Your task to perform on an android device: turn on sleep mode Image 0: 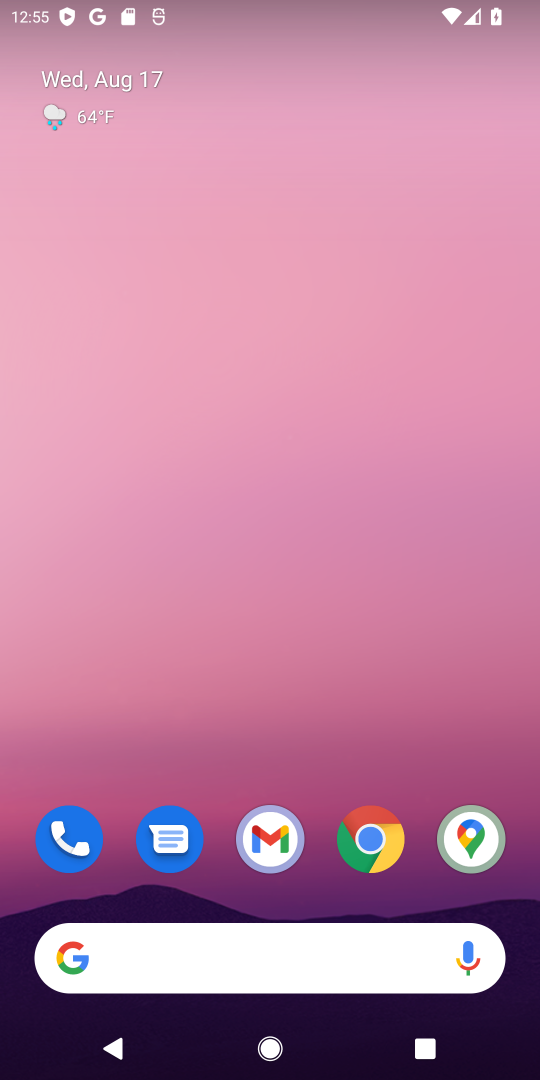
Step 0: drag from (301, 979) to (318, 124)
Your task to perform on an android device: turn on sleep mode Image 1: 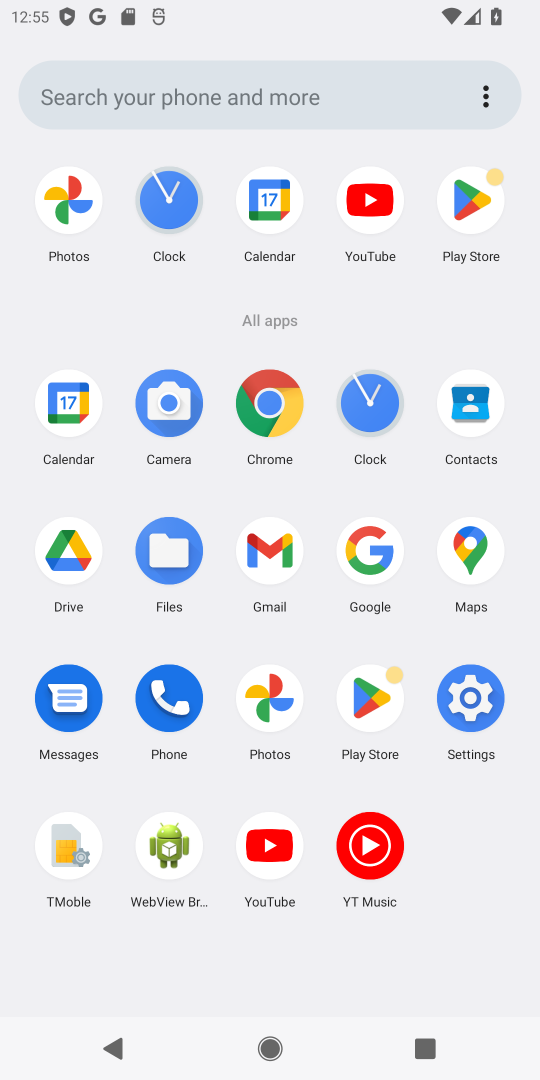
Step 1: click (469, 700)
Your task to perform on an android device: turn on sleep mode Image 2: 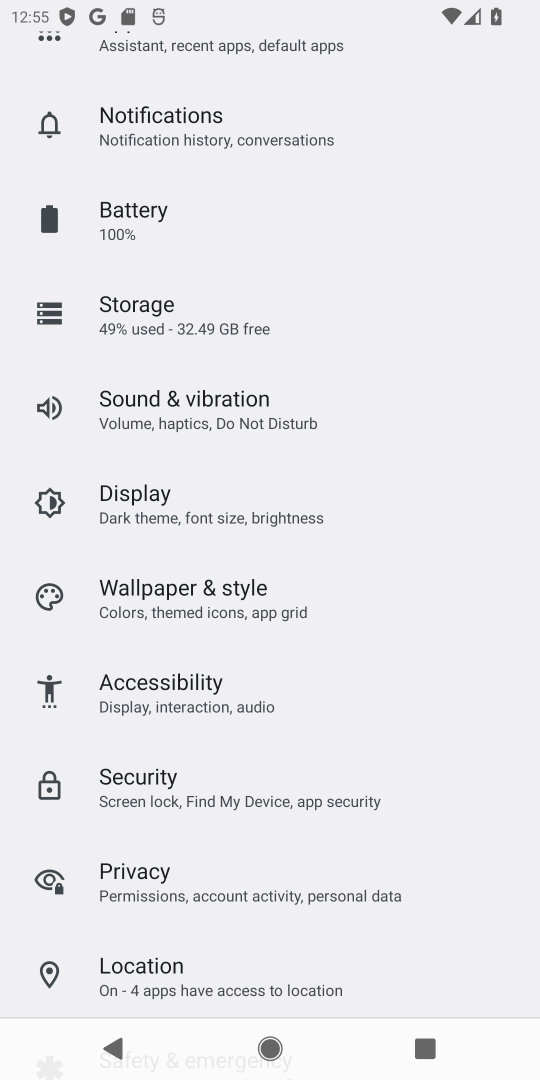
Step 2: click (223, 514)
Your task to perform on an android device: turn on sleep mode Image 3: 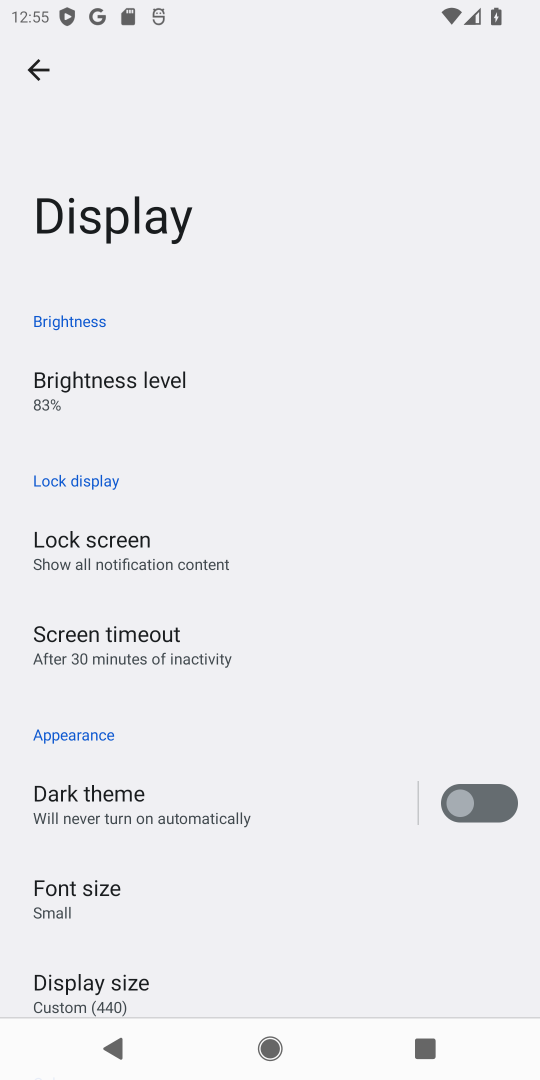
Step 3: click (130, 675)
Your task to perform on an android device: turn on sleep mode Image 4: 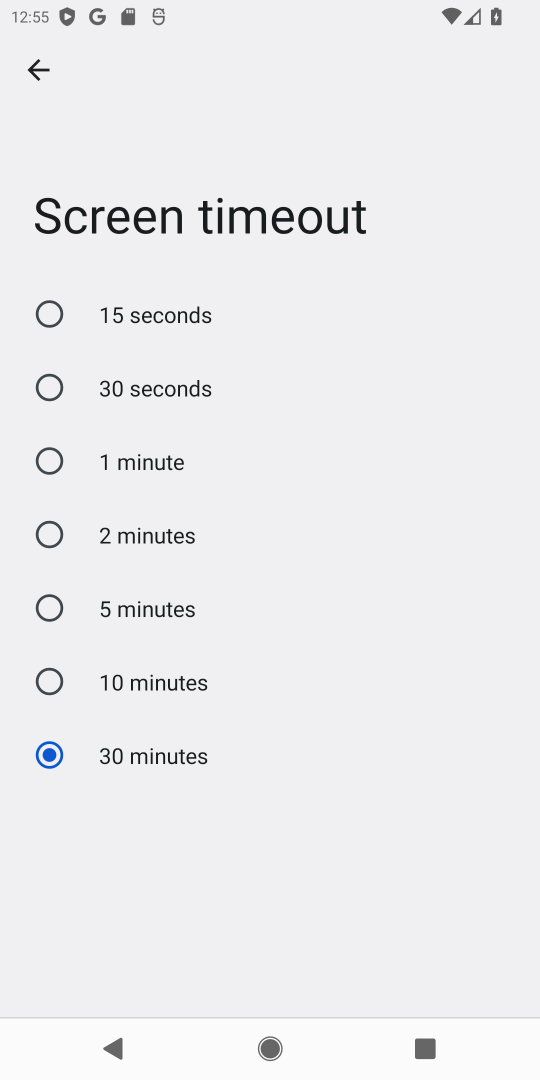
Step 4: press back button
Your task to perform on an android device: turn on sleep mode Image 5: 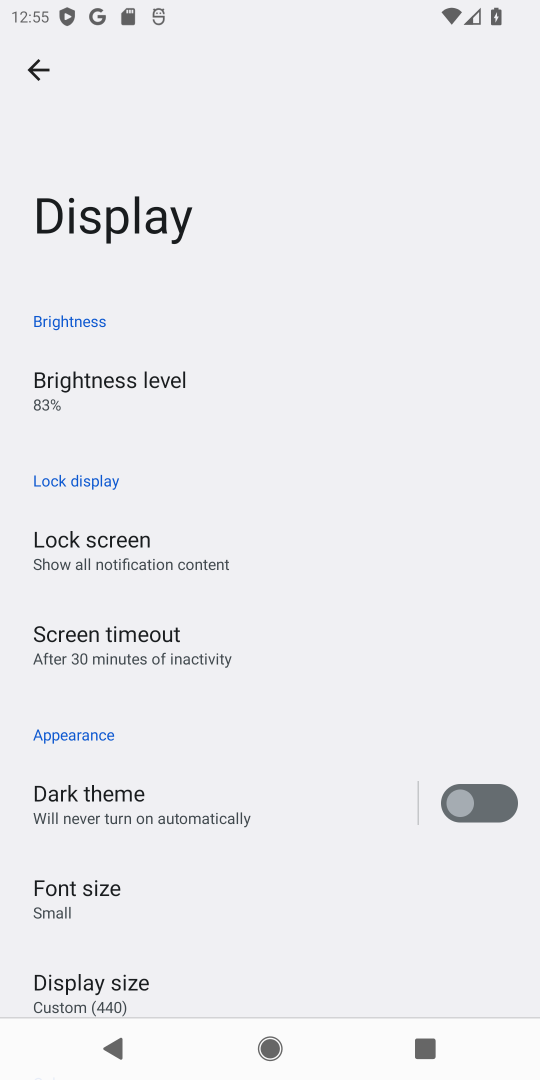
Step 5: drag from (201, 839) to (263, 711)
Your task to perform on an android device: turn on sleep mode Image 6: 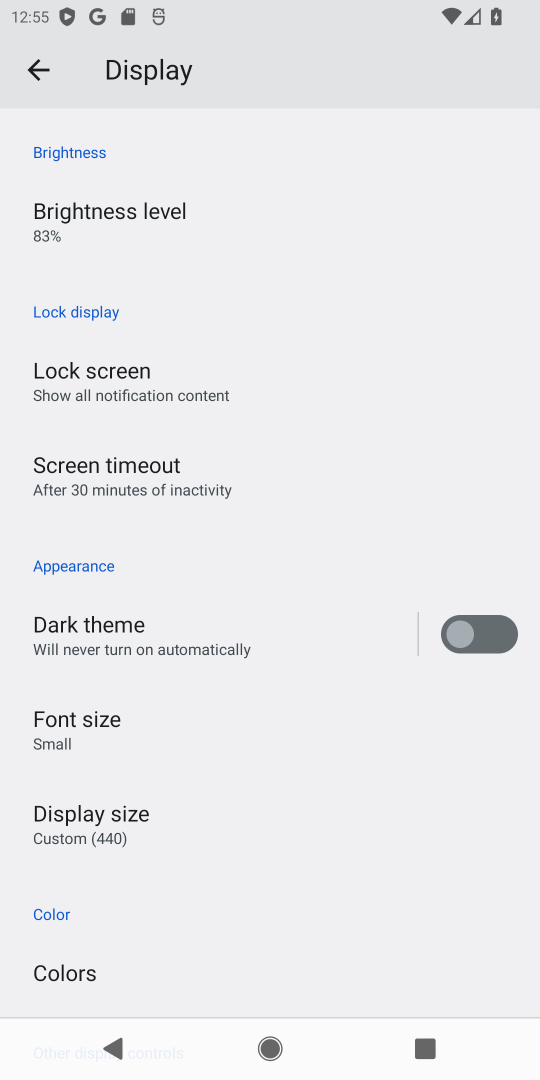
Step 6: drag from (160, 926) to (257, 713)
Your task to perform on an android device: turn on sleep mode Image 7: 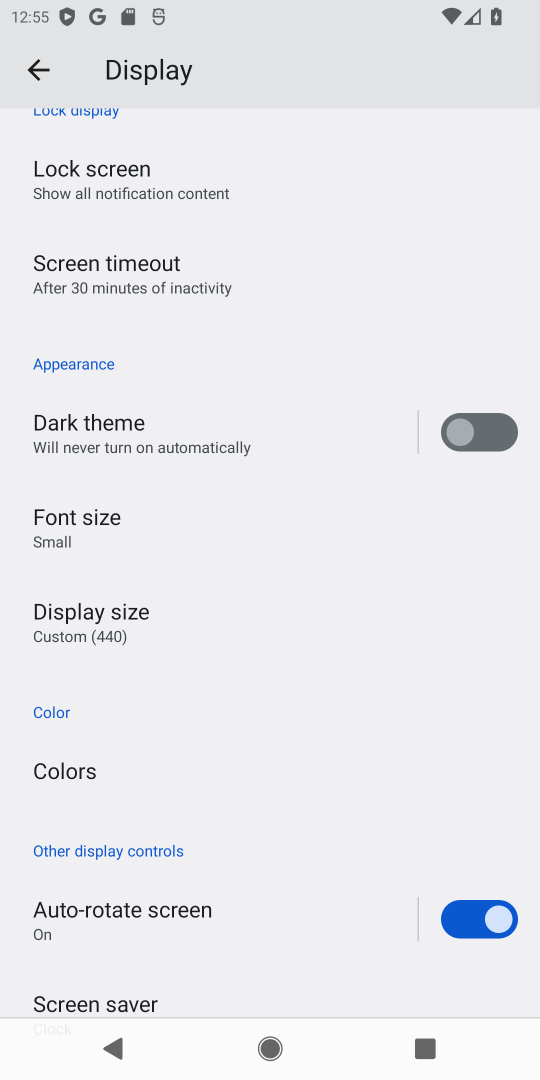
Step 7: drag from (195, 938) to (242, 749)
Your task to perform on an android device: turn on sleep mode Image 8: 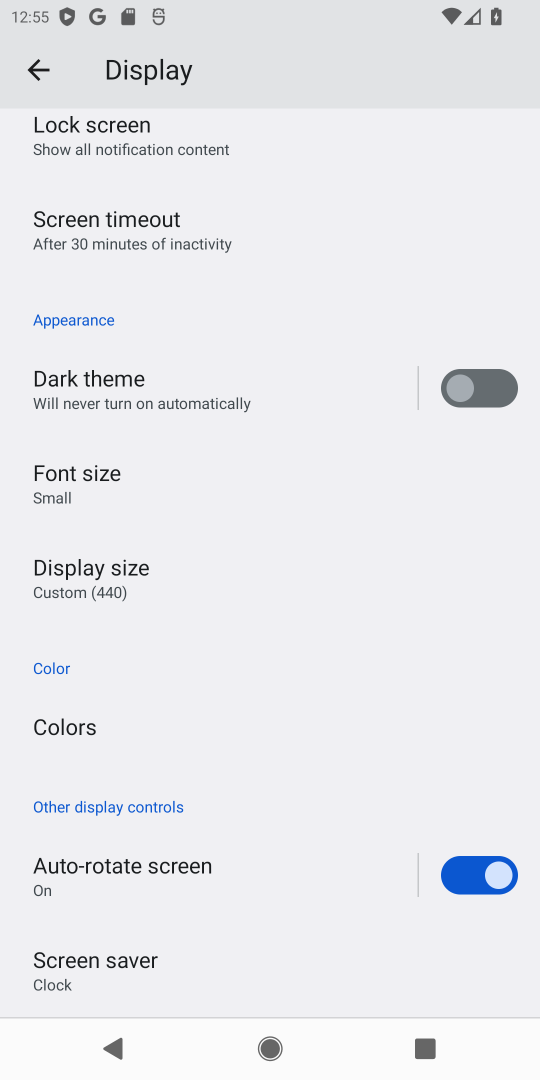
Step 8: drag from (260, 354) to (270, 791)
Your task to perform on an android device: turn on sleep mode Image 9: 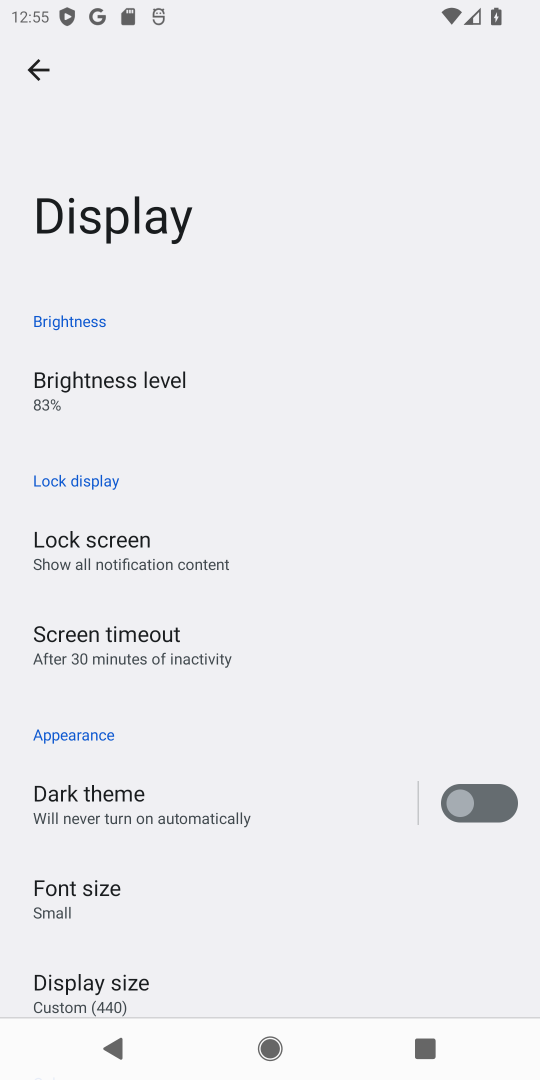
Step 9: press back button
Your task to perform on an android device: turn on sleep mode Image 10: 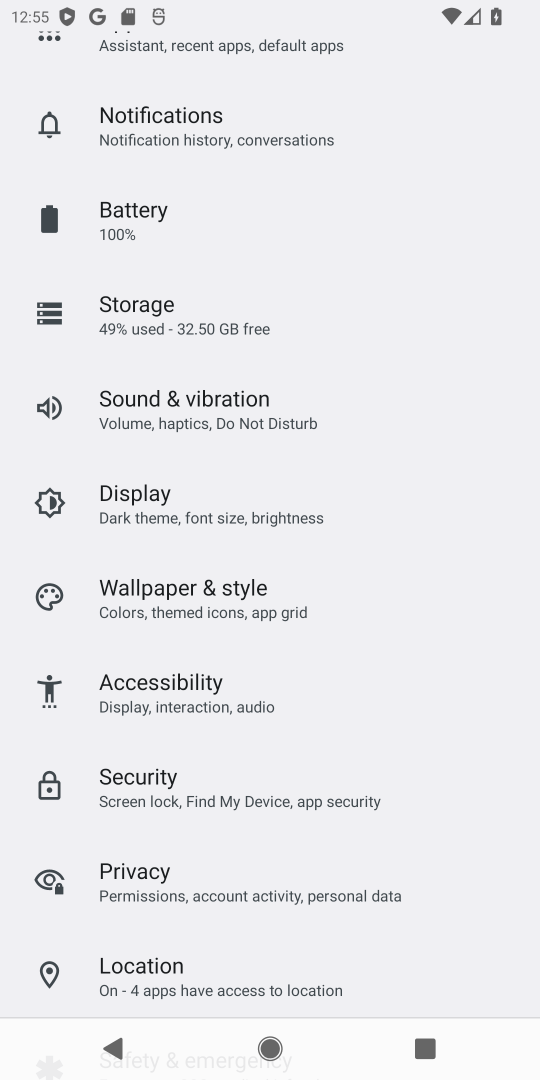
Step 10: drag from (340, 222) to (311, 872)
Your task to perform on an android device: turn on sleep mode Image 11: 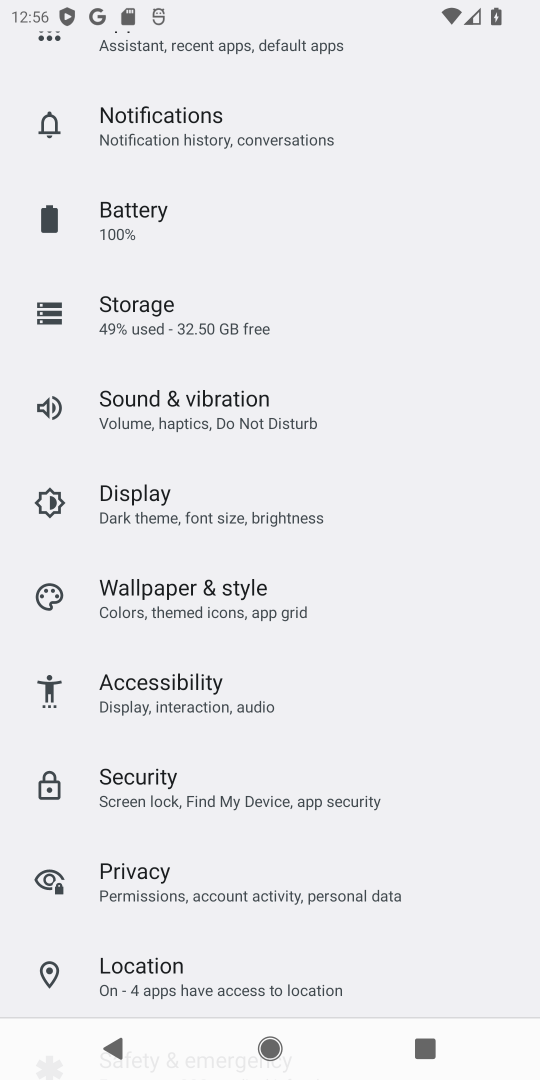
Step 11: drag from (255, 266) to (285, 802)
Your task to perform on an android device: turn on sleep mode Image 12: 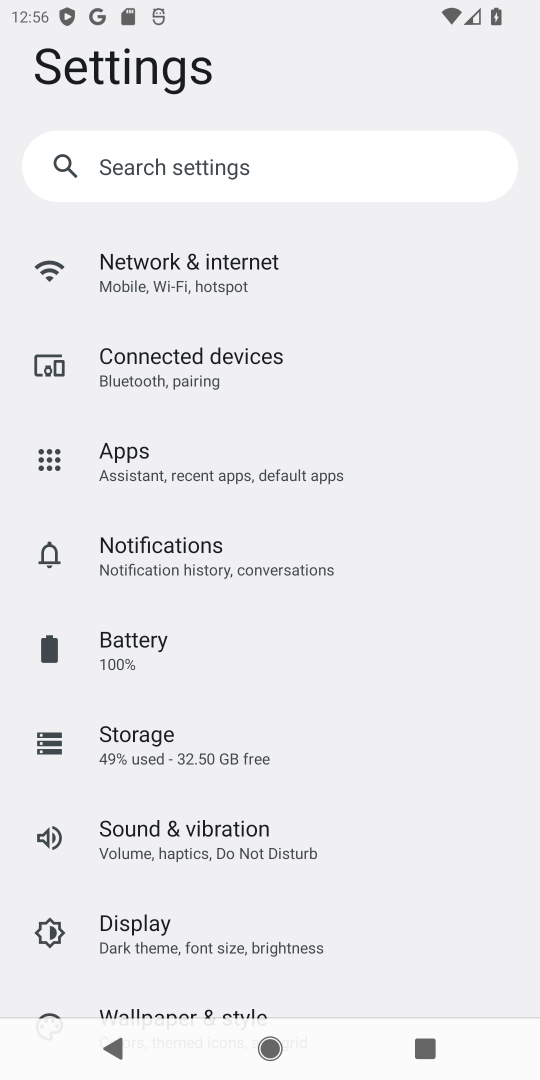
Step 12: click (248, 165)
Your task to perform on an android device: turn on sleep mode Image 13: 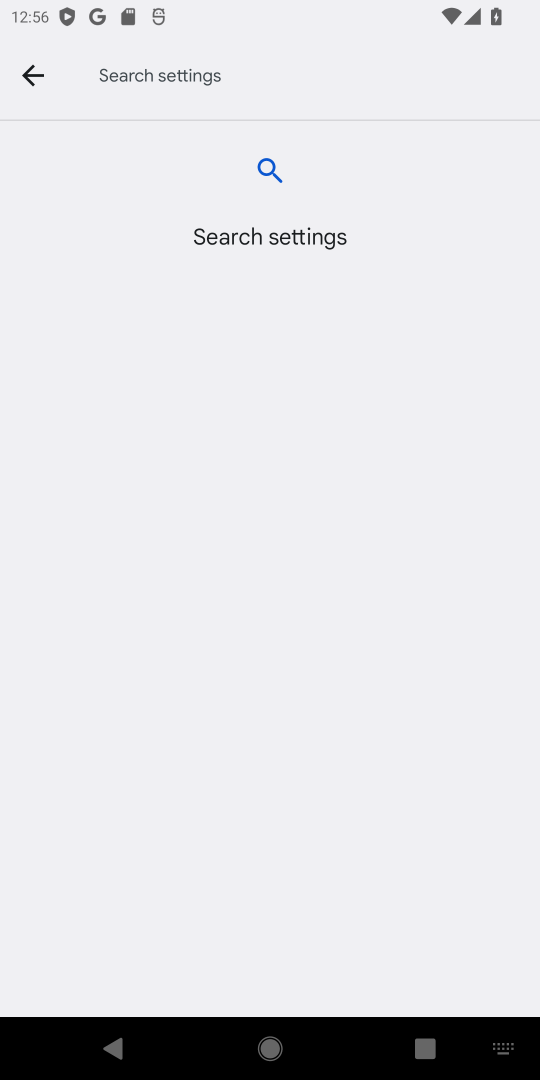
Step 13: type "sleep mode"
Your task to perform on an android device: turn on sleep mode Image 14: 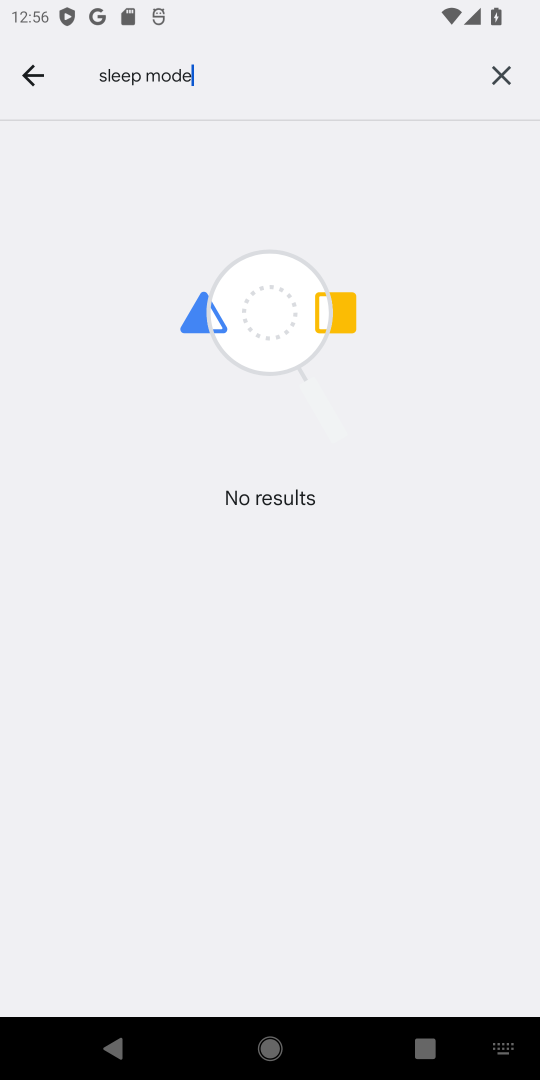
Step 14: task complete